Your task to perform on an android device: Open Chrome and go to the settings page Image 0: 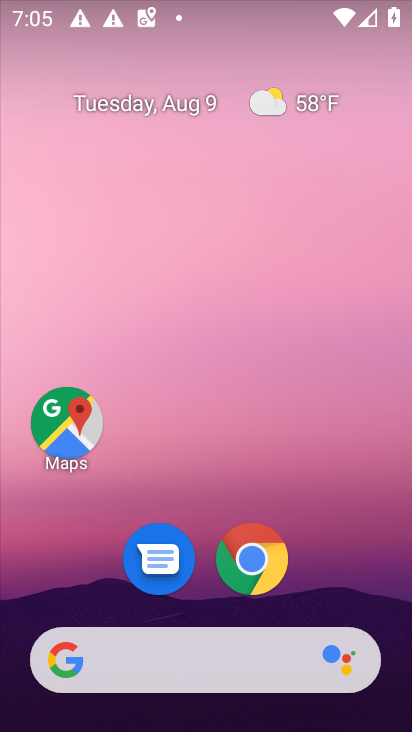
Step 0: click (251, 562)
Your task to perform on an android device: Open Chrome and go to the settings page Image 1: 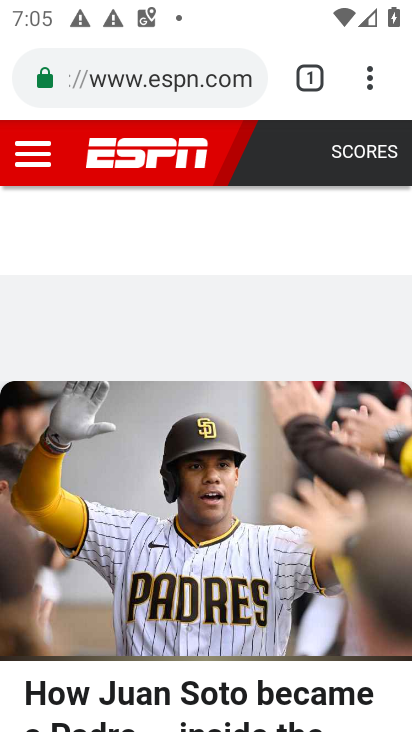
Step 1: click (368, 83)
Your task to perform on an android device: Open Chrome and go to the settings page Image 2: 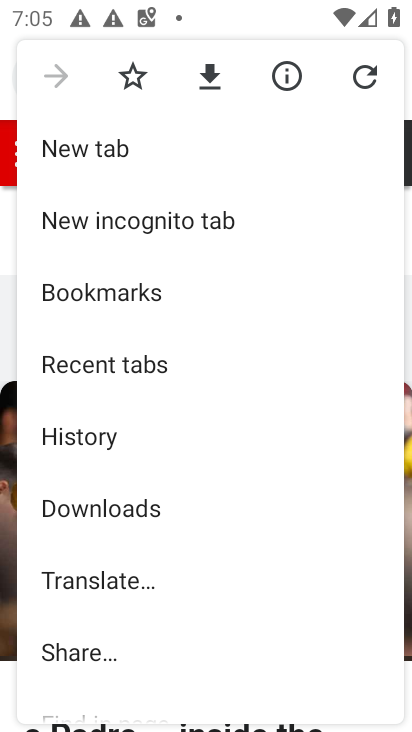
Step 2: drag from (200, 603) to (211, 326)
Your task to perform on an android device: Open Chrome and go to the settings page Image 3: 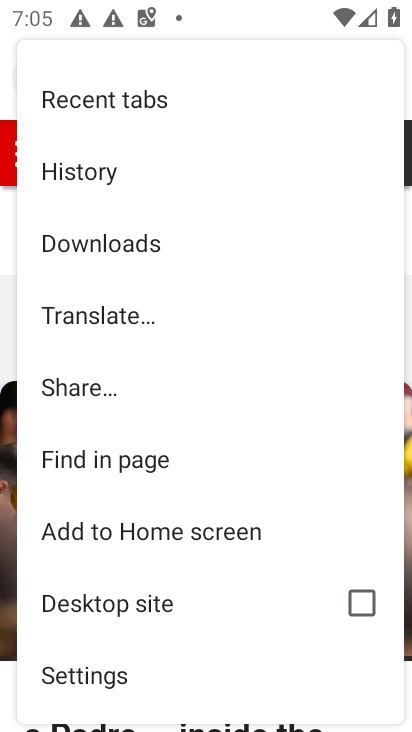
Step 3: click (73, 679)
Your task to perform on an android device: Open Chrome and go to the settings page Image 4: 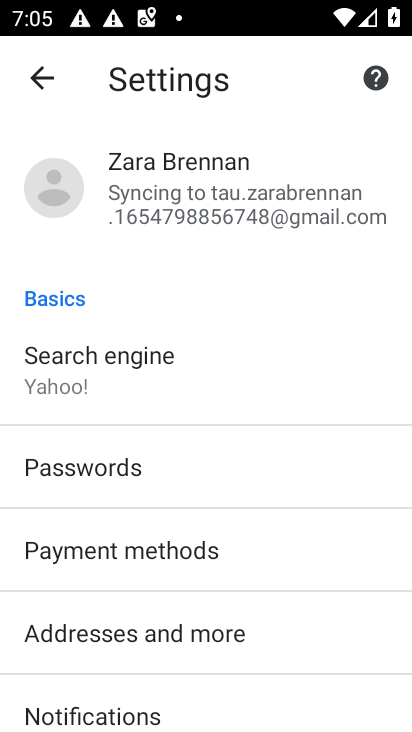
Step 4: task complete